Your task to perform on an android device: check android version Image 0: 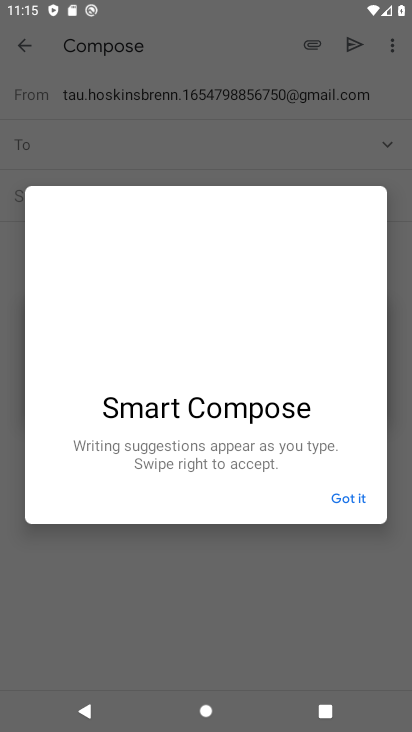
Step 0: press home button
Your task to perform on an android device: check android version Image 1: 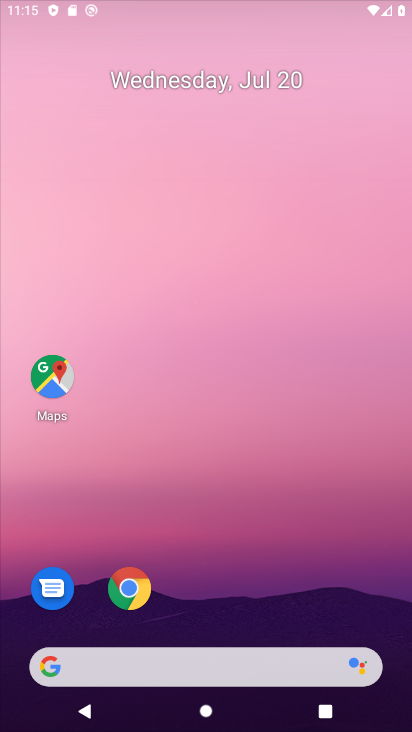
Step 1: press home button
Your task to perform on an android device: check android version Image 2: 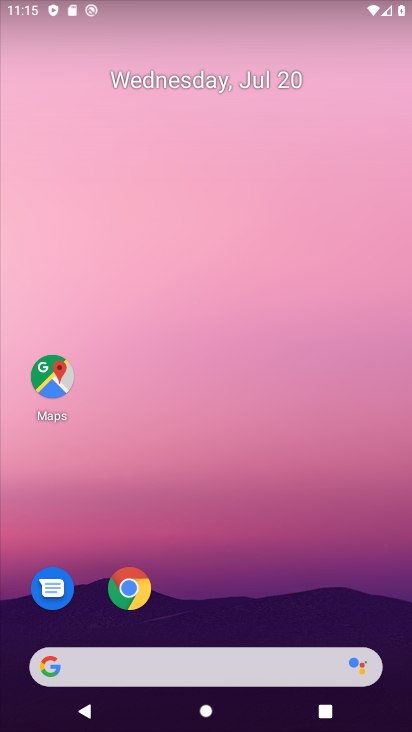
Step 2: drag from (265, 330) to (252, 95)
Your task to perform on an android device: check android version Image 3: 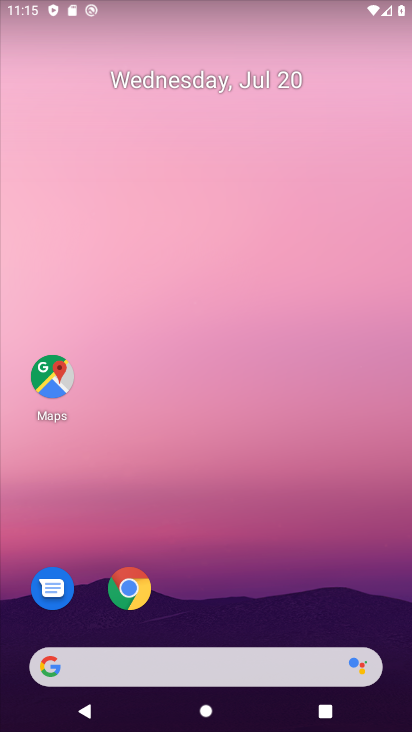
Step 3: drag from (255, 537) to (263, 60)
Your task to perform on an android device: check android version Image 4: 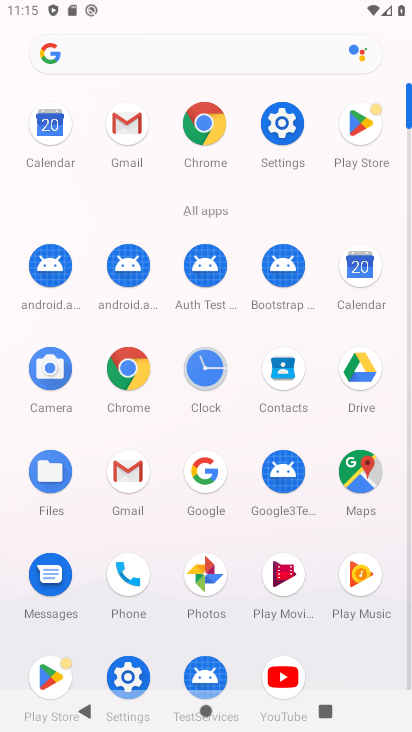
Step 4: click (279, 114)
Your task to perform on an android device: check android version Image 5: 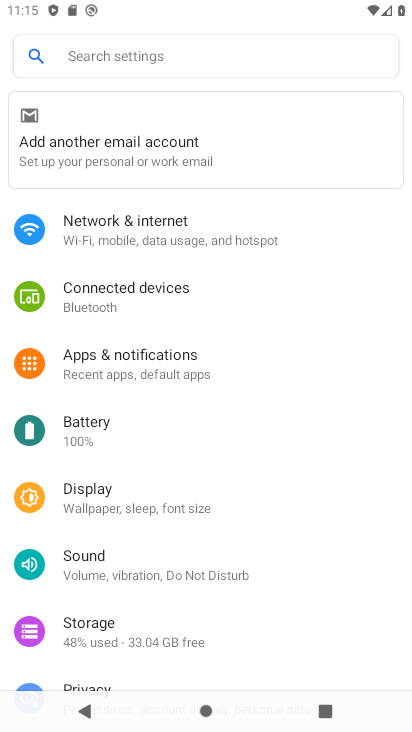
Step 5: drag from (147, 611) to (168, 278)
Your task to perform on an android device: check android version Image 6: 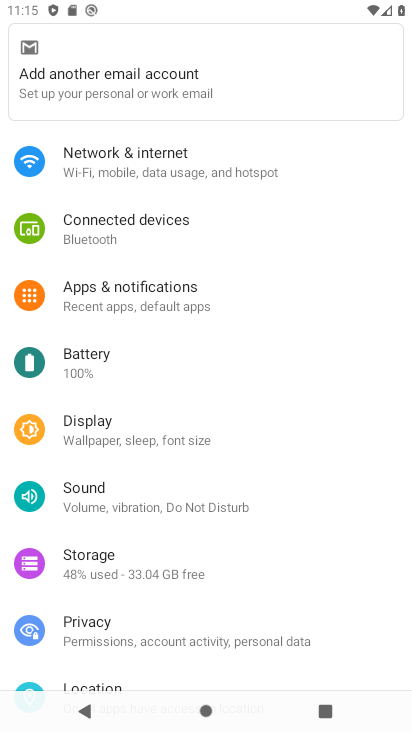
Step 6: drag from (158, 664) to (199, 211)
Your task to perform on an android device: check android version Image 7: 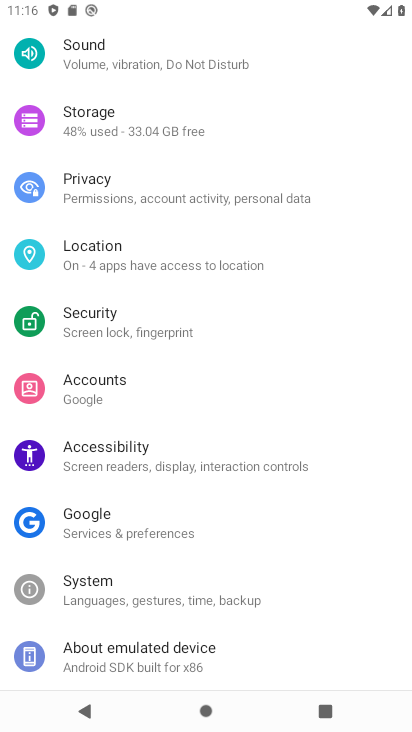
Step 7: click (149, 653)
Your task to perform on an android device: check android version Image 8: 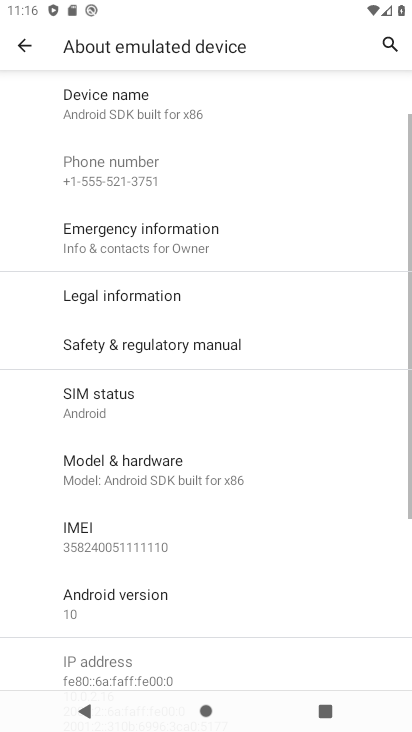
Step 8: click (77, 613)
Your task to perform on an android device: check android version Image 9: 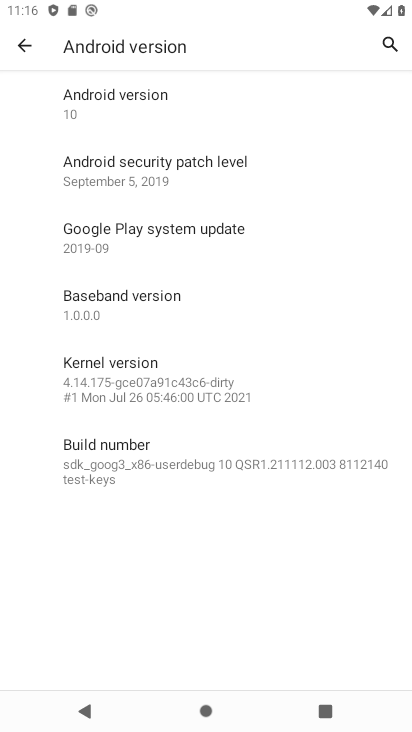
Step 9: task complete